Your task to perform on an android device: set the stopwatch Image 0: 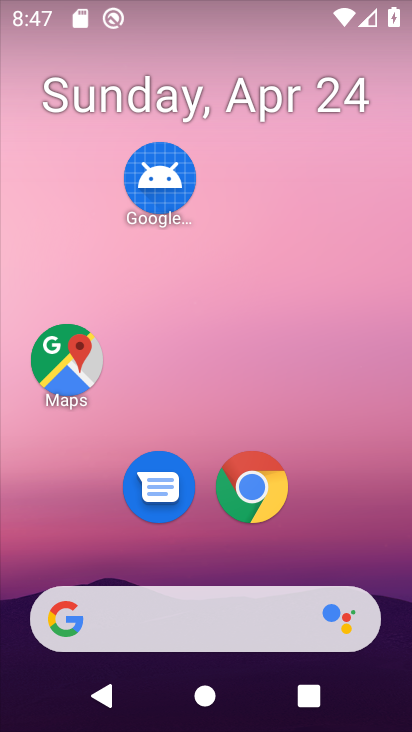
Step 0: drag from (336, 388) to (311, 97)
Your task to perform on an android device: set the stopwatch Image 1: 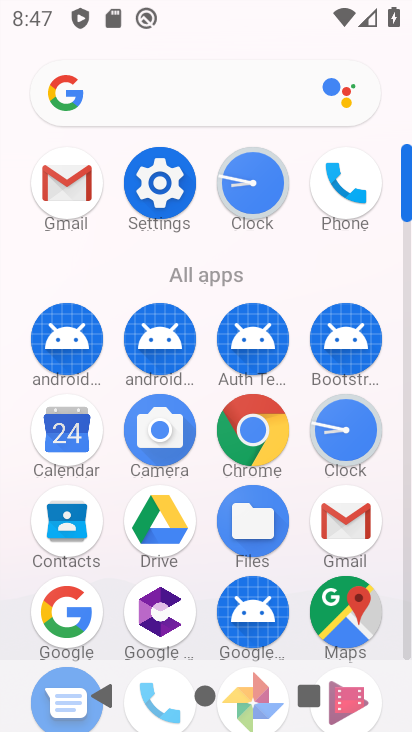
Step 1: click (360, 447)
Your task to perform on an android device: set the stopwatch Image 2: 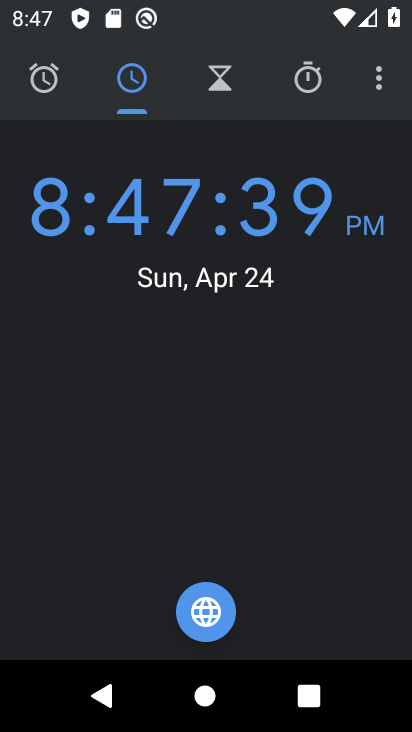
Step 2: click (305, 94)
Your task to perform on an android device: set the stopwatch Image 3: 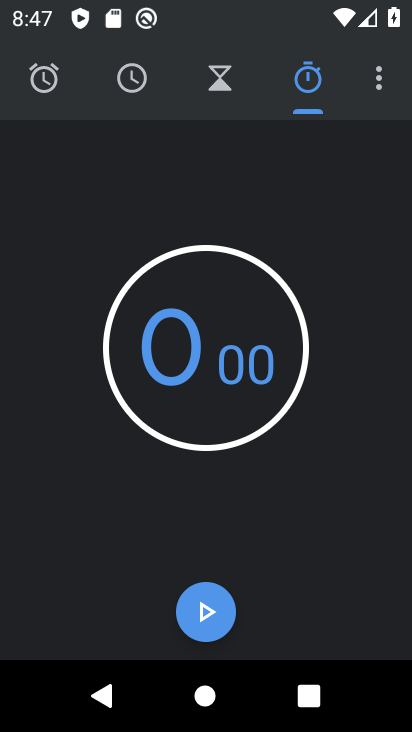
Step 3: click (202, 628)
Your task to perform on an android device: set the stopwatch Image 4: 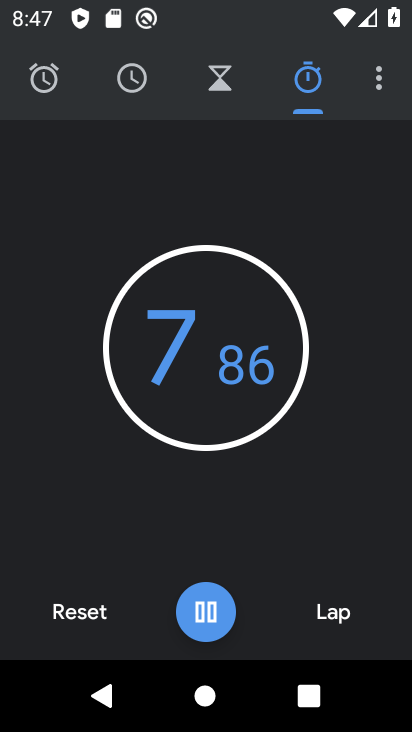
Step 4: click (339, 607)
Your task to perform on an android device: set the stopwatch Image 5: 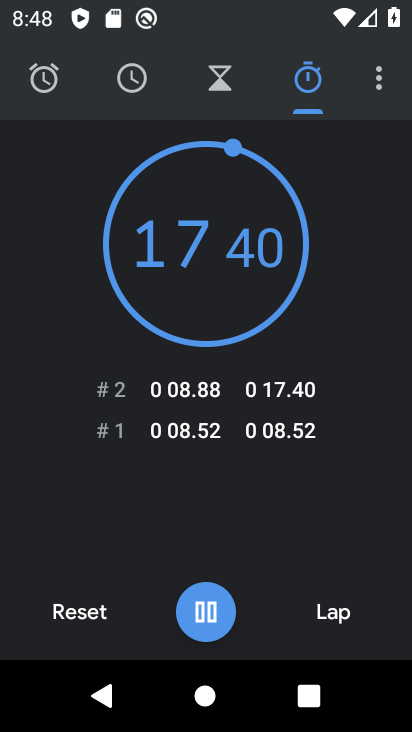
Step 5: click (339, 607)
Your task to perform on an android device: set the stopwatch Image 6: 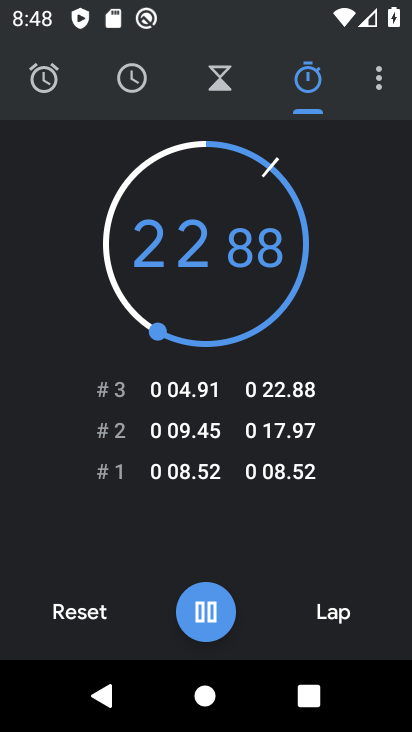
Step 6: click (213, 619)
Your task to perform on an android device: set the stopwatch Image 7: 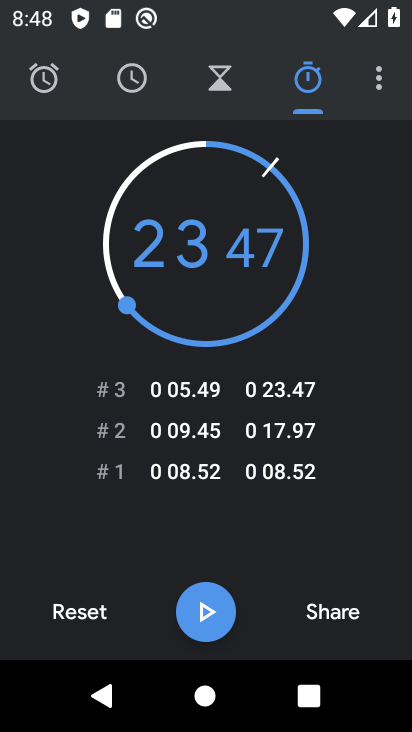
Step 7: task complete